Your task to perform on an android device: Open calendar and show me the first week of next month Image 0: 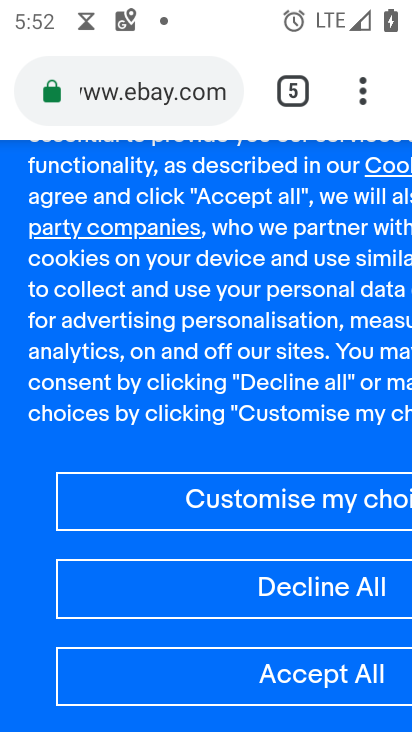
Step 0: press home button
Your task to perform on an android device: Open calendar and show me the first week of next month Image 1: 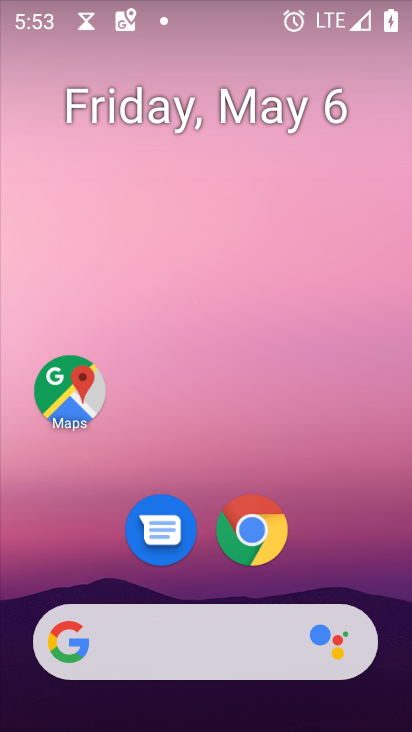
Step 1: drag from (335, 558) to (192, 68)
Your task to perform on an android device: Open calendar and show me the first week of next month Image 2: 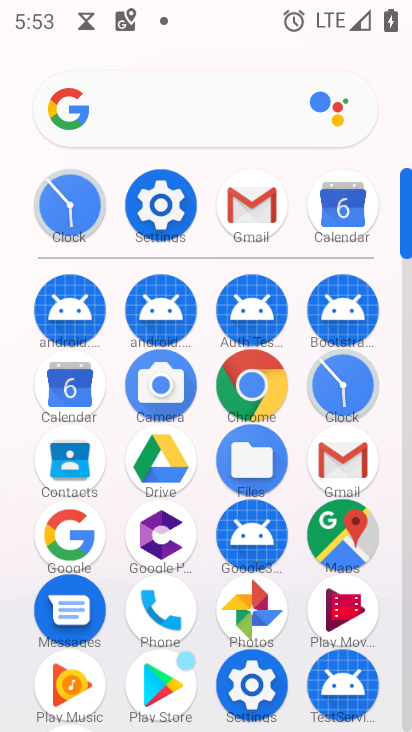
Step 2: click (74, 361)
Your task to perform on an android device: Open calendar and show me the first week of next month Image 3: 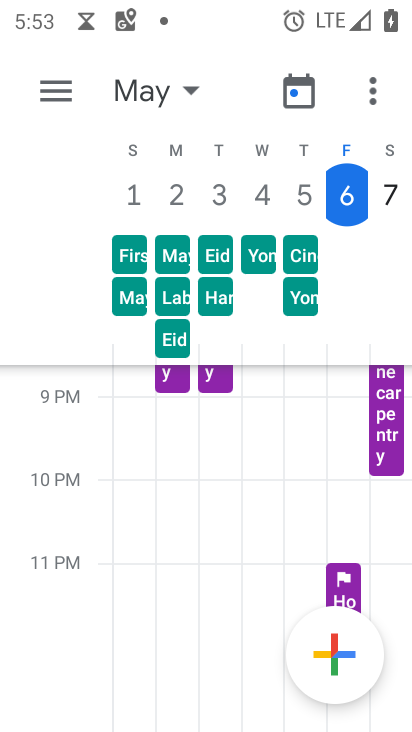
Step 3: click (189, 85)
Your task to perform on an android device: Open calendar and show me the first week of next month Image 4: 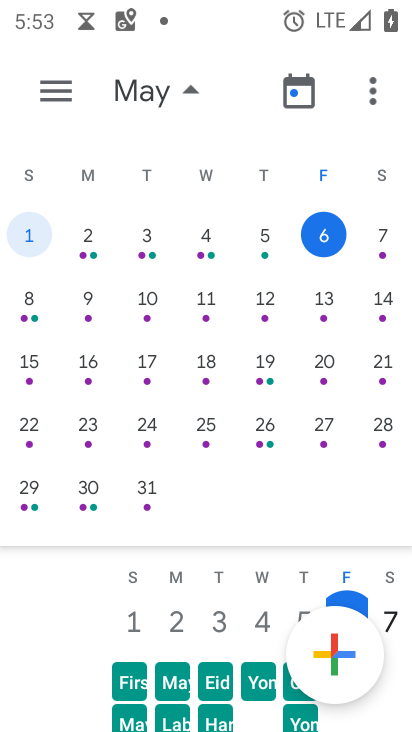
Step 4: task complete